Your task to perform on an android device: Open the calendar app, open the side menu, and click the "Day" option Image 0: 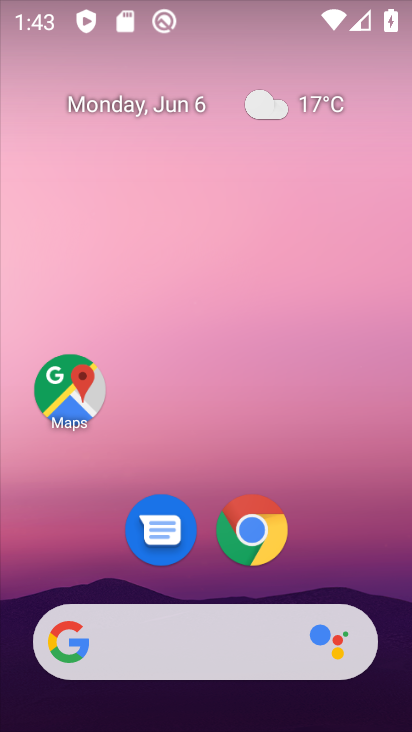
Step 0: drag from (348, 495) to (331, 274)
Your task to perform on an android device: Open the calendar app, open the side menu, and click the "Day" option Image 1: 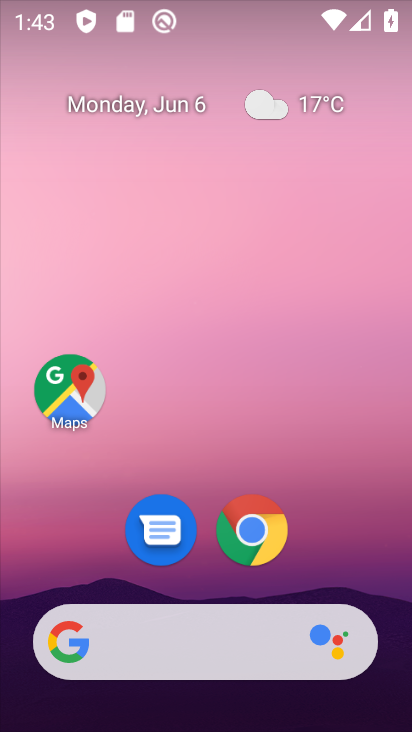
Step 1: drag from (170, 505) to (209, 176)
Your task to perform on an android device: Open the calendar app, open the side menu, and click the "Day" option Image 2: 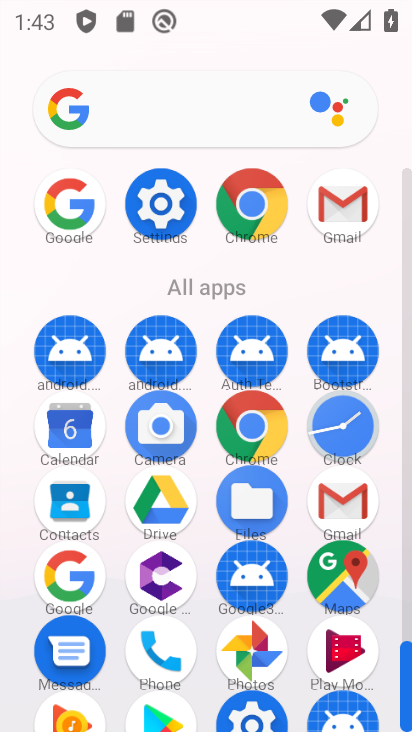
Step 2: click (74, 420)
Your task to perform on an android device: Open the calendar app, open the side menu, and click the "Day" option Image 3: 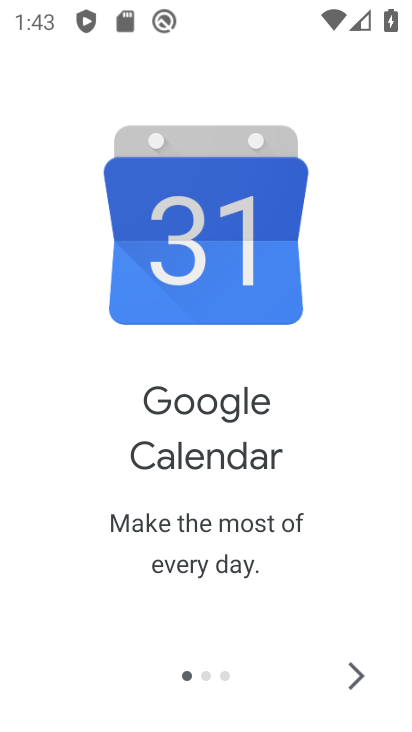
Step 3: click (344, 674)
Your task to perform on an android device: Open the calendar app, open the side menu, and click the "Day" option Image 4: 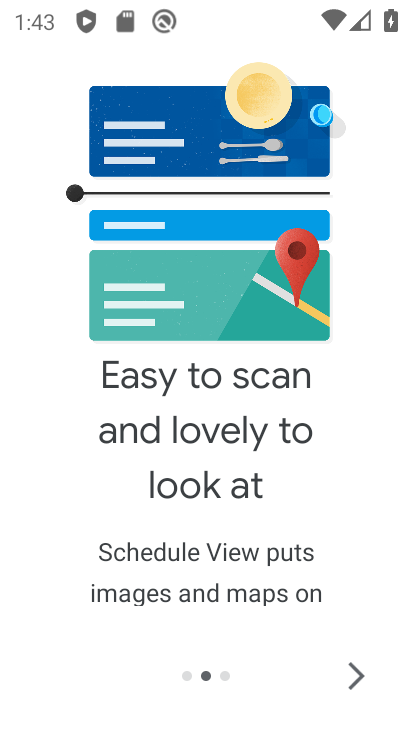
Step 4: click (337, 671)
Your task to perform on an android device: Open the calendar app, open the side menu, and click the "Day" option Image 5: 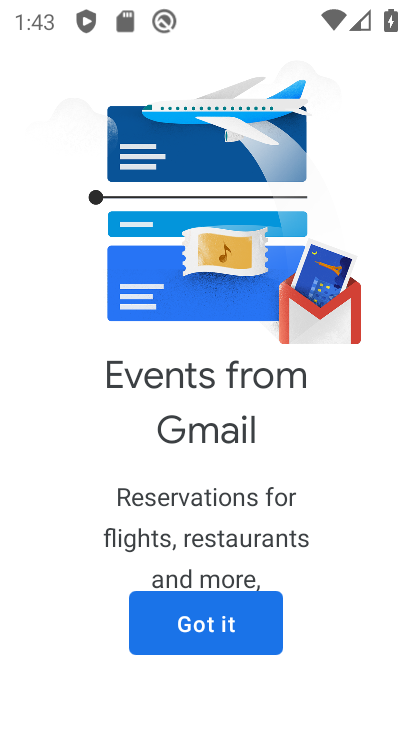
Step 5: click (337, 671)
Your task to perform on an android device: Open the calendar app, open the side menu, and click the "Day" option Image 6: 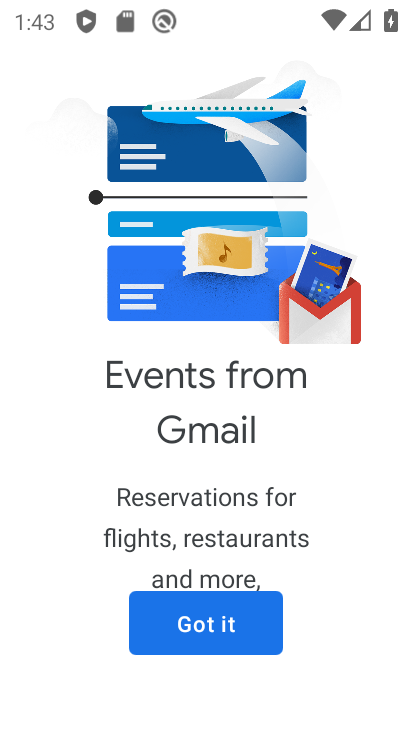
Step 6: click (228, 624)
Your task to perform on an android device: Open the calendar app, open the side menu, and click the "Day" option Image 7: 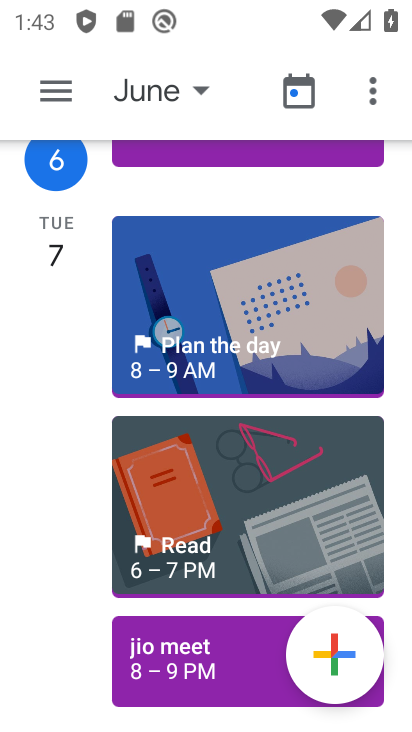
Step 7: click (42, 73)
Your task to perform on an android device: Open the calendar app, open the side menu, and click the "Day" option Image 8: 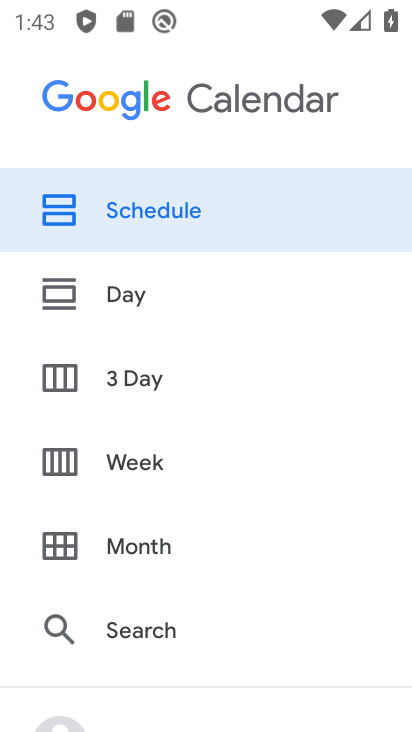
Step 8: click (118, 304)
Your task to perform on an android device: Open the calendar app, open the side menu, and click the "Day" option Image 9: 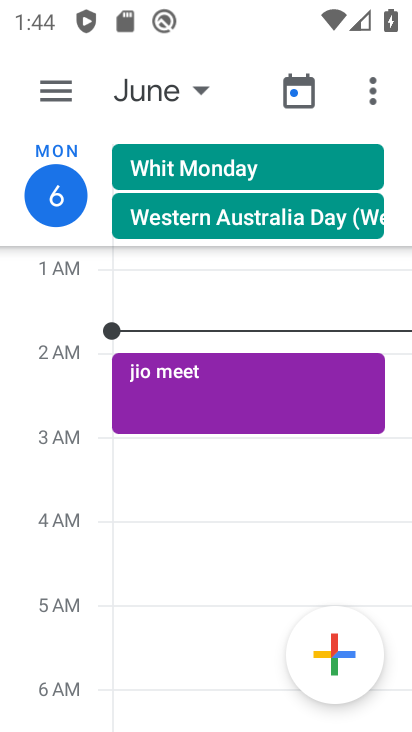
Step 9: task complete